Your task to perform on an android device: Open settings on Google Maps Image 0: 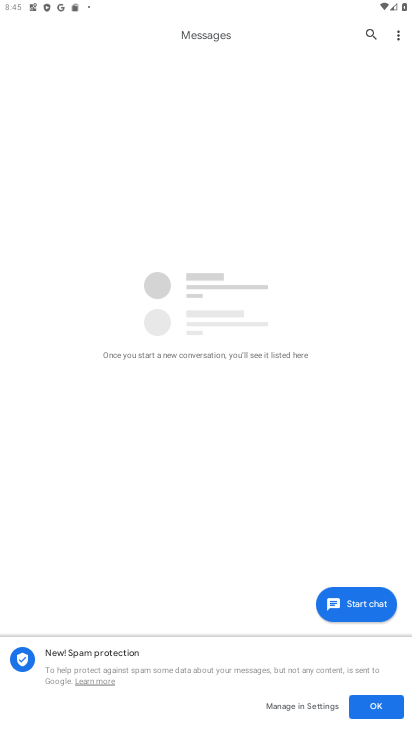
Step 0: press home button
Your task to perform on an android device: Open settings on Google Maps Image 1: 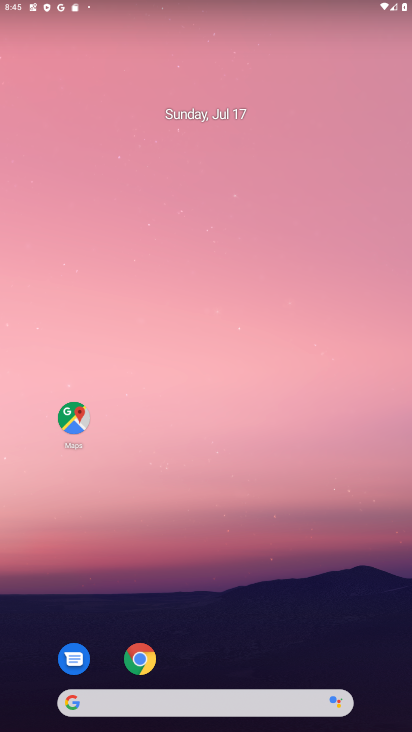
Step 1: click (61, 417)
Your task to perform on an android device: Open settings on Google Maps Image 2: 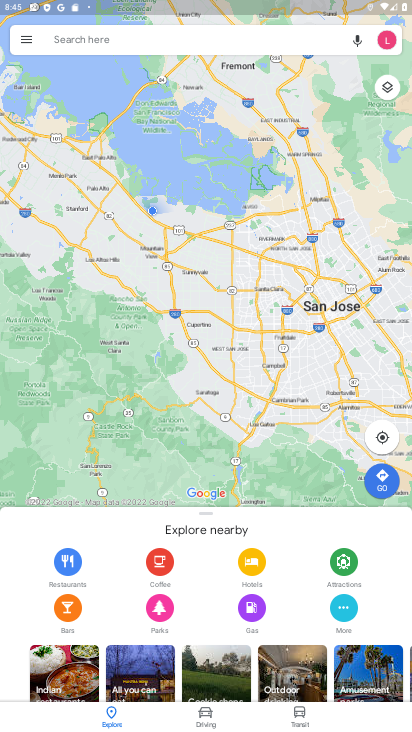
Step 2: click (24, 43)
Your task to perform on an android device: Open settings on Google Maps Image 3: 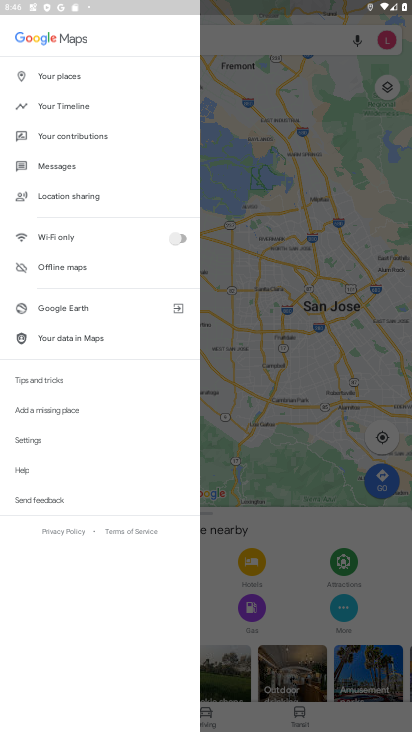
Step 3: click (14, 437)
Your task to perform on an android device: Open settings on Google Maps Image 4: 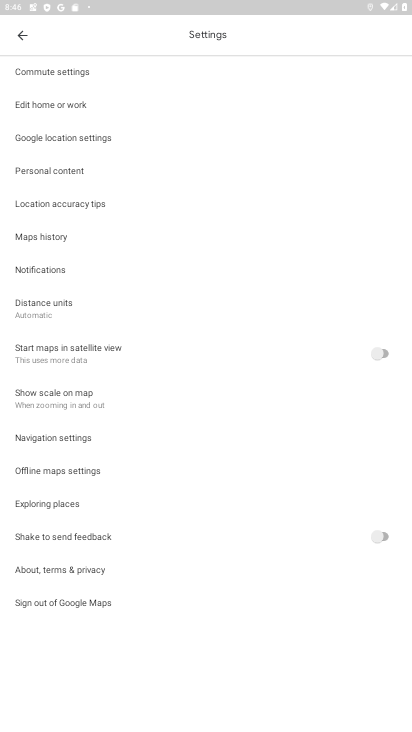
Step 4: task complete